Your task to perform on an android device: Open maps Image 0: 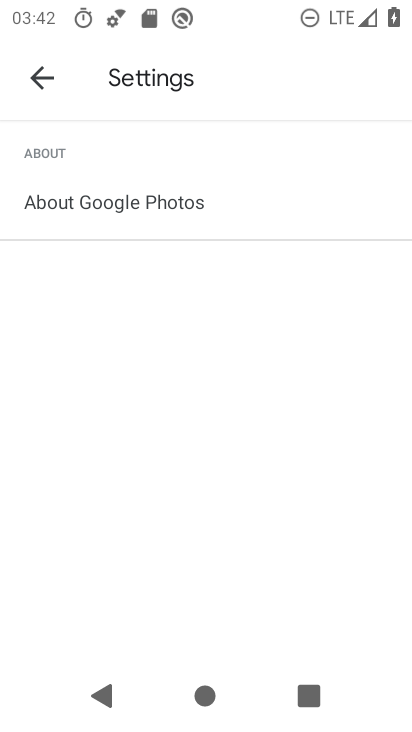
Step 0: click (159, 413)
Your task to perform on an android device: Open maps Image 1: 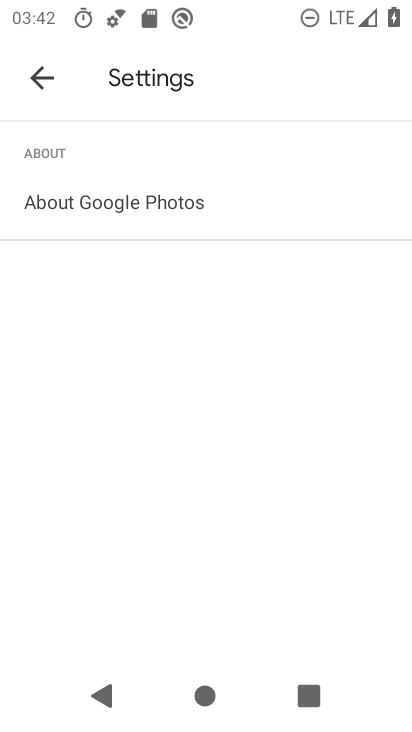
Step 1: press home button
Your task to perform on an android device: Open maps Image 2: 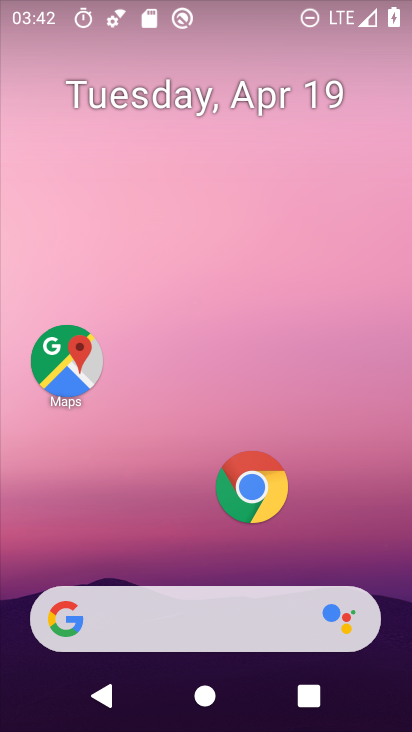
Step 2: click (72, 352)
Your task to perform on an android device: Open maps Image 3: 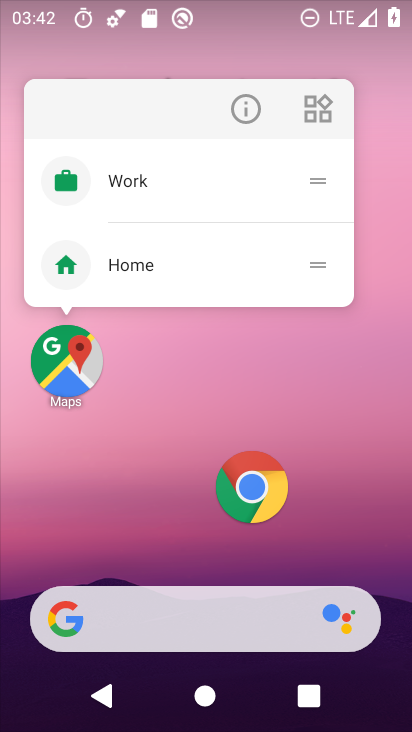
Step 3: click (65, 368)
Your task to perform on an android device: Open maps Image 4: 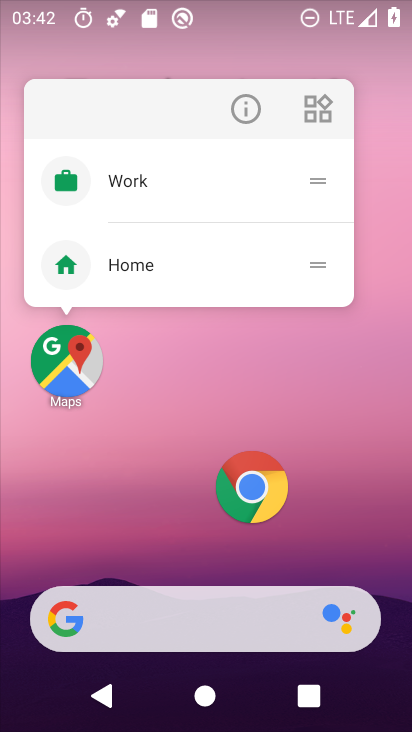
Step 4: click (61, 364)
Your task to perform on an android device: Open maps Image 5: 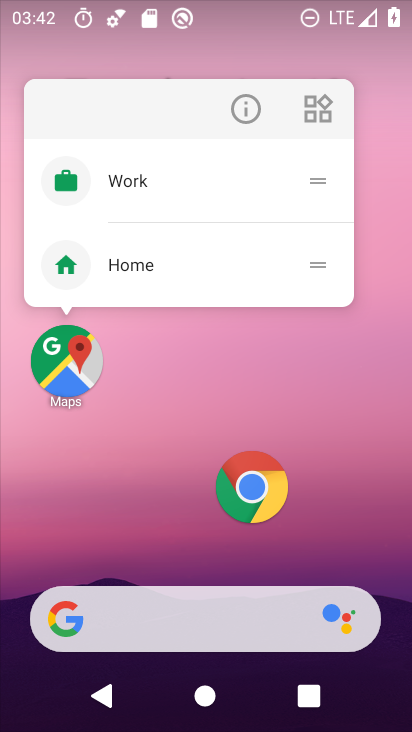
Step 5: click (78, 354)
Your task to perform on an android device: Open maps Image 6: 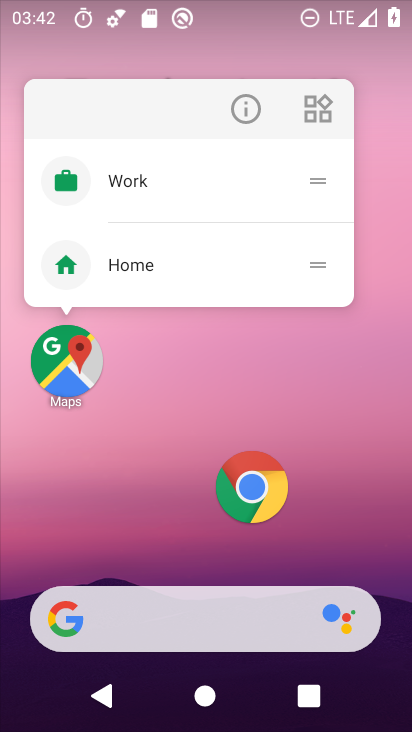
Step 6: click (35, 360)
Your task to perform on an android device: Open maps Image 7: 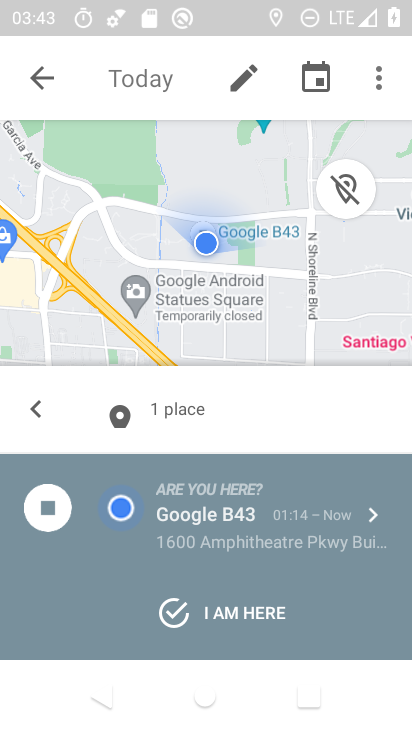
Step 7: task complete